Your task to perform on an android device: Open network settings Image 0: 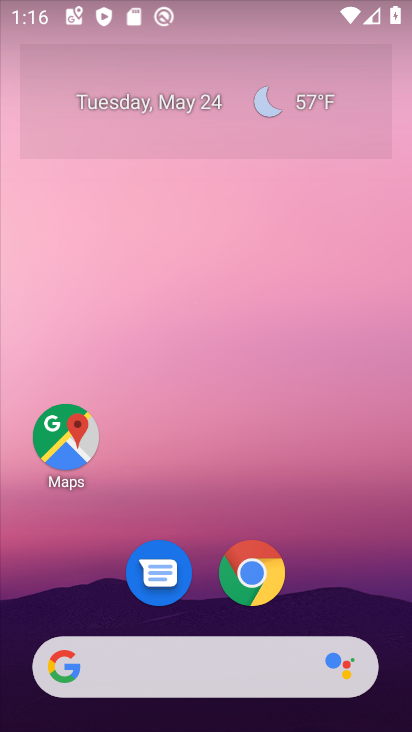
Step 0: drag from (339, 603) to (287, 0)
Your task to perform on an android device: Open network settings Image 1: 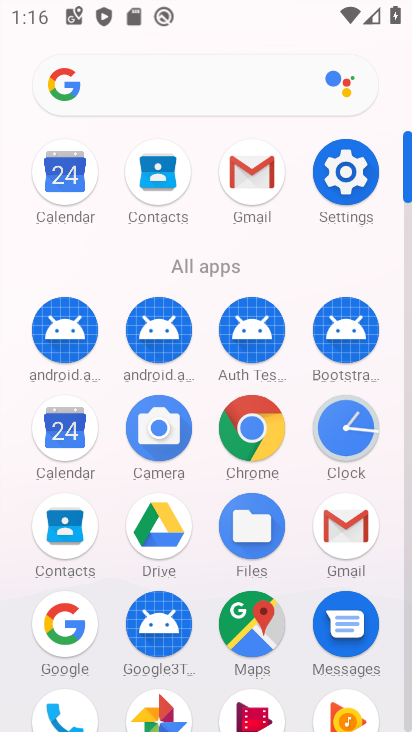
Step 1: click (347, 168)
Your task to perform on an android device: Open network settings Image 2: 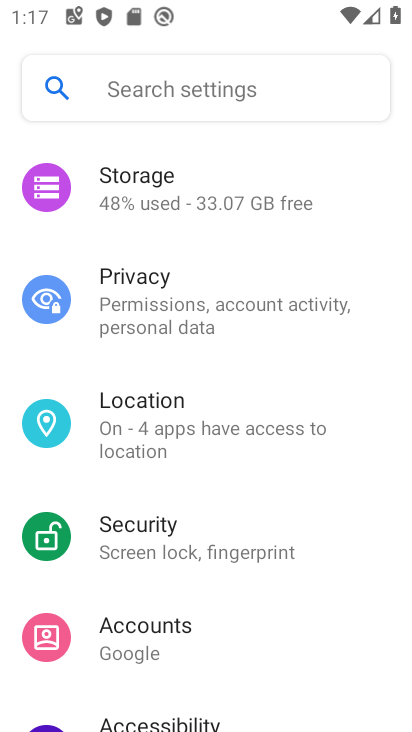
Step 2: drag from (184, 177) to (347, 661)
Your task to perform on an android device: Open network settings Image 3: 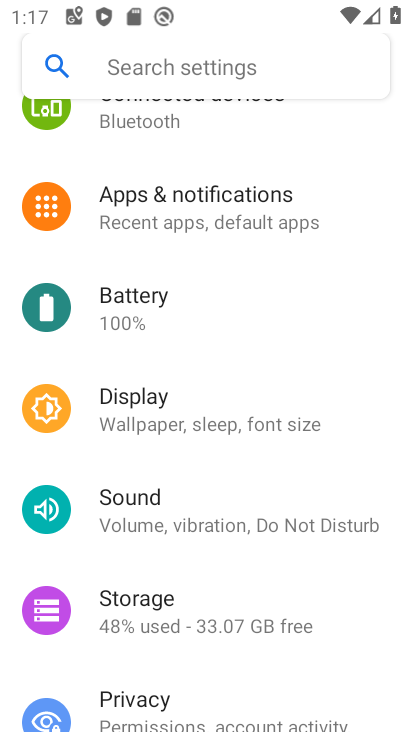
Step 3: drag from (215, 234) to (283, 599)
Your task to perform on an android device: Open network settings Image 4: 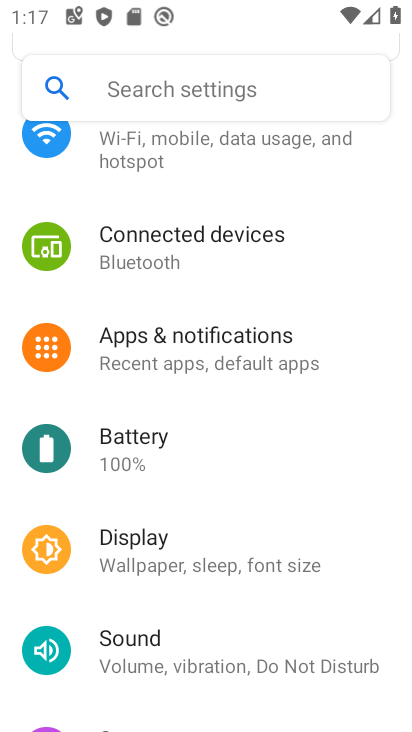
Step 4: drag from (171, 106) to (259, 583)
Your task to perform on an android device: Open network settings Image 5: 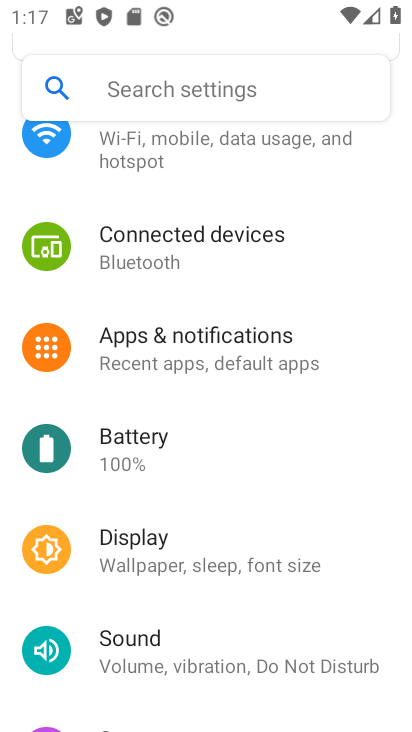
Step 5: click (167, 141)
Your task to perform on an android device: Open network settings Image 6: 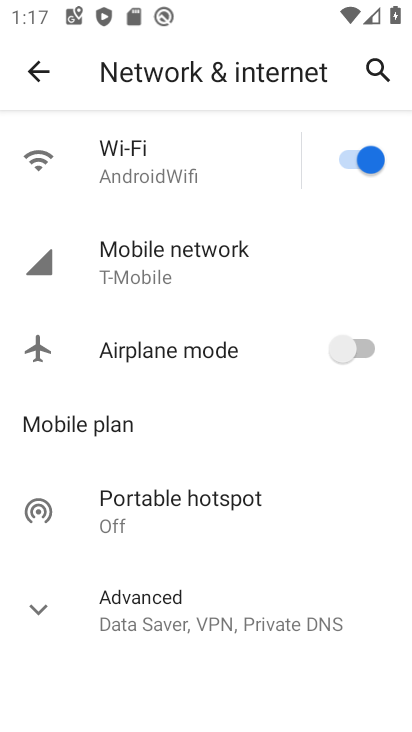
Step 6: click (188, 166)
Your task to perform on an android device: Open network settings Image 7: 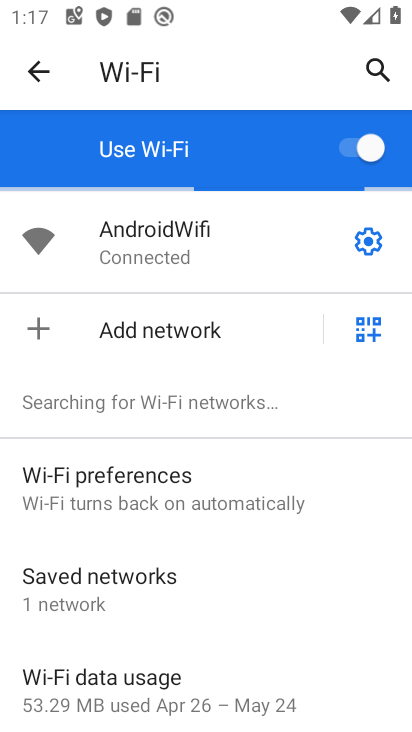
Step 7: task complete